Your task to perform on an android device: Search for vegetarian restaurants on Maps Image 0: 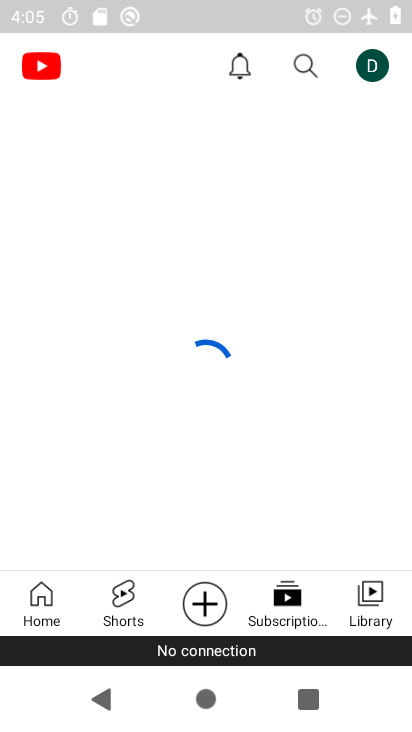
Step 0: press home button
Your task to perform on an android device: Search for vegetarian restaurants on Maps Image 1: 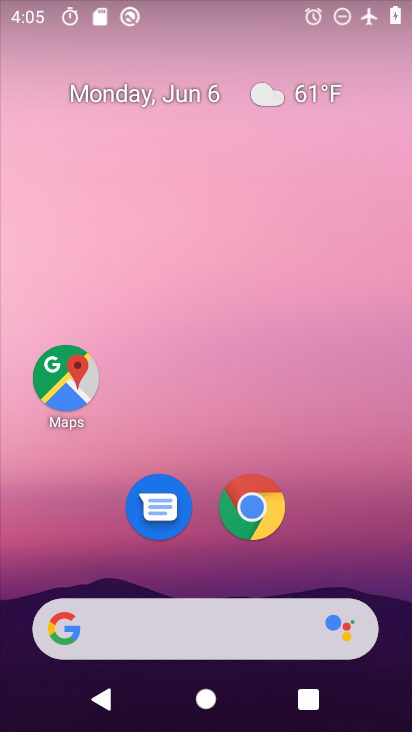
Step 1: click (66, 375)
Your task to perform on an android device: Search for vegetarian restaurants on Maps Image 2: 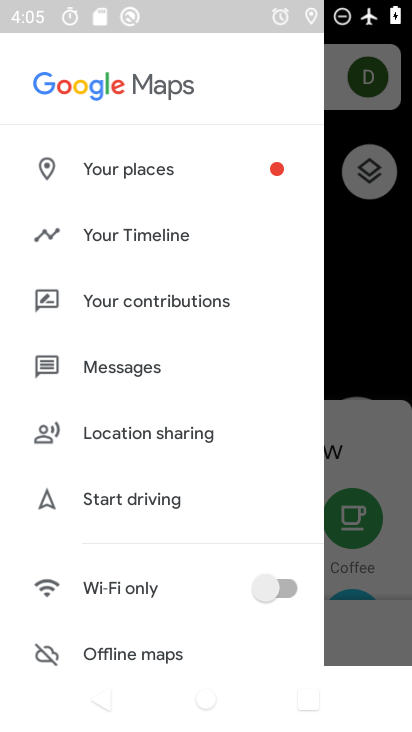
Step 2: click (369, 279)
Your task to perform on an android device: Search for vegetarian restaurants on Maps Image 3: 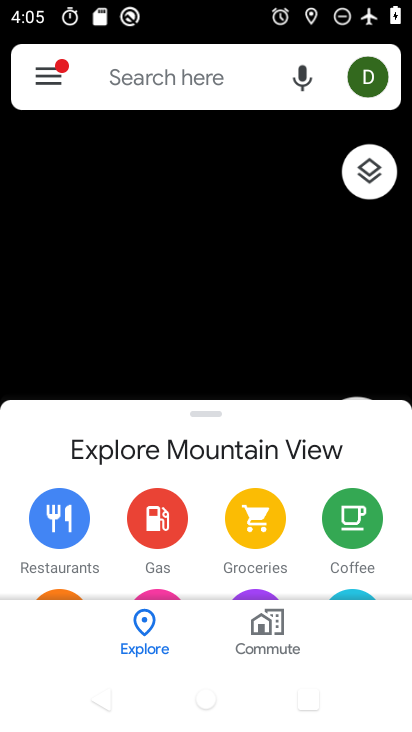
Step 3: click (245, 71)
Your task to perform on an android device: Search for vegetarian restaurants on Maps Image 4: 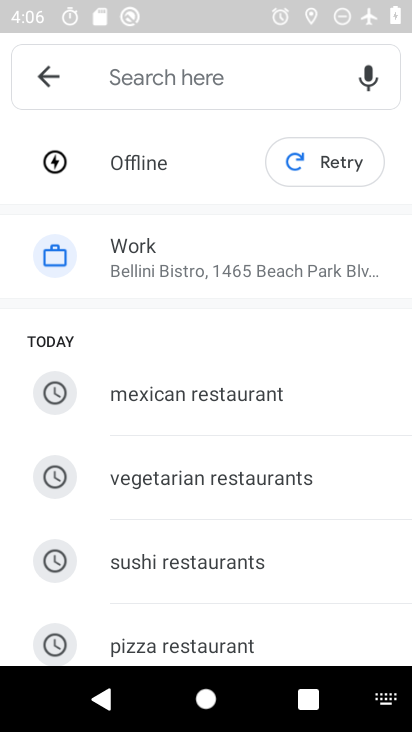
Step 4: click (180, 485)
Your task to perform on an android device: Search for vegetarian restaurants on Maps Image 5: 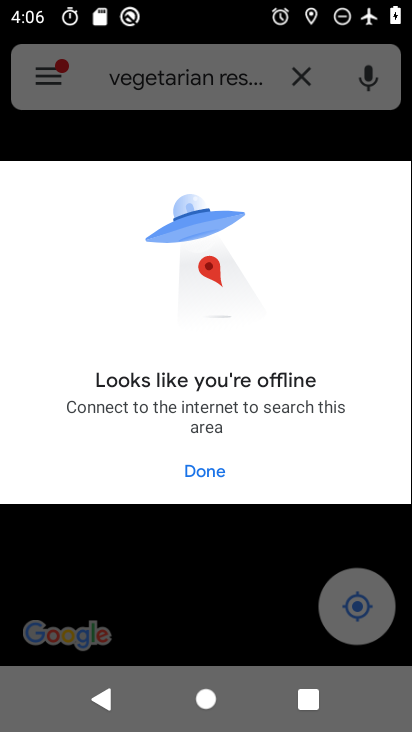
Step 5: task complete